Your task to perform on an android device: Open the Play Movies app and select the watchlist tab. Image 0: 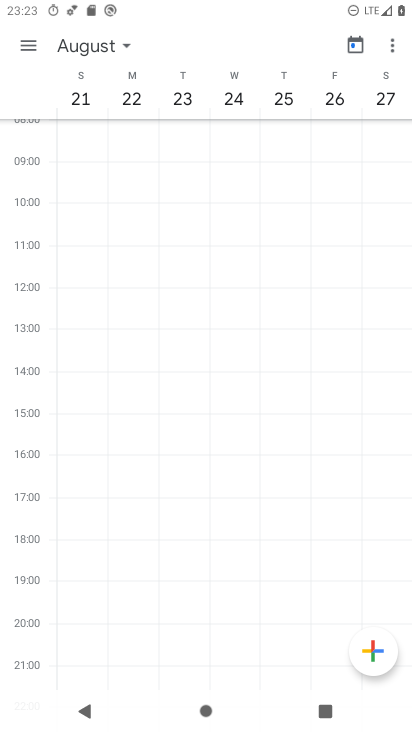
Step 0: press home button
Your task to perform on an android device: Open the Play Movies app and select the watchlist tab. Image 1: 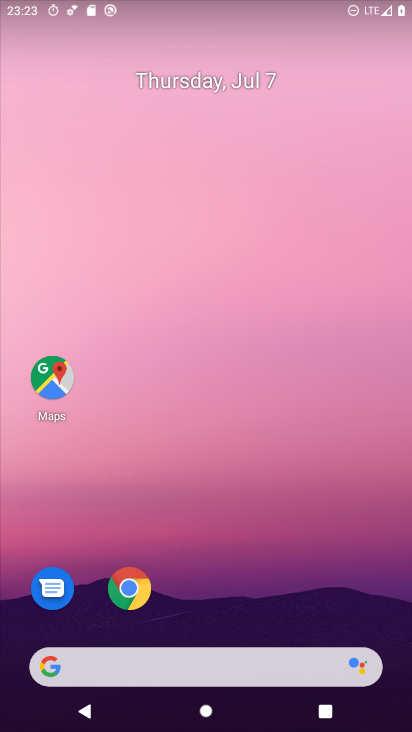
Step 1: drag from (254, 583) to (246, 84)
Your task to perform on an android device: Open the Play Movies app and select the watchlist tab. Image 2: 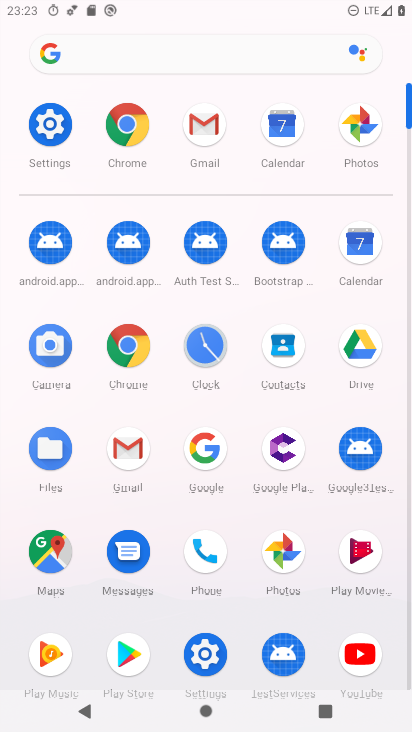
Step 2: click (370, 556)
Your task to perform on an android device: Open the Play Movies app and select the watchlist tab. Image 3: 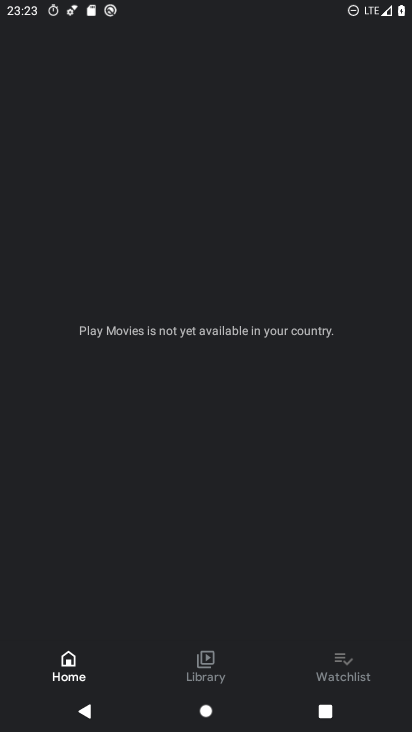
Step 3: click (334, 669)
Your task to perform on an android device: Open the Play Movies app and select the watchlist tab. Image 4: 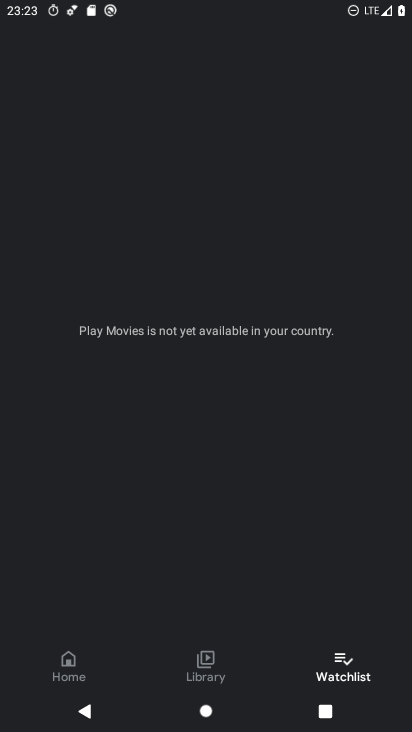
Step 4: task complete